Your task to perform on an android device: Go to settings Image 0: 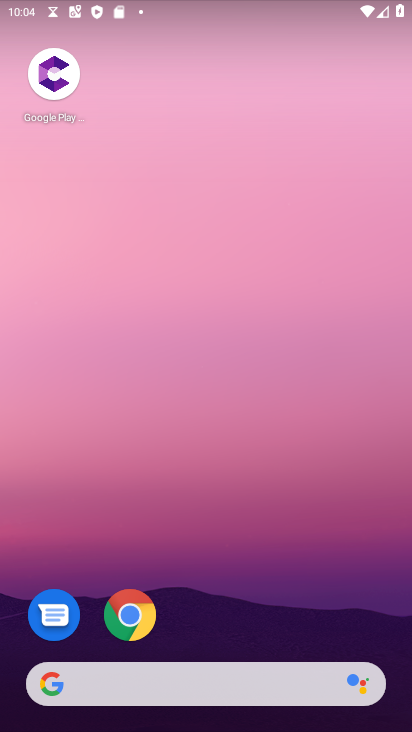
Step 0: drag from (223, 623) to (234, 136)
Your task to perform on an android device: Go to settings Image 1: 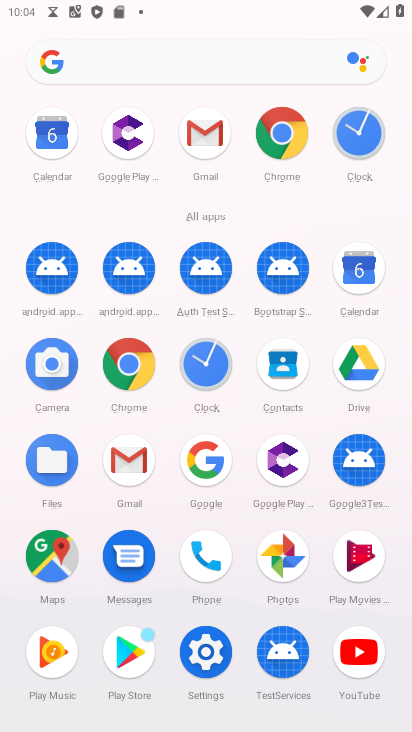
Step 1: click (207, 641)
Your task to perform on an android device: Go to settings Image 2: 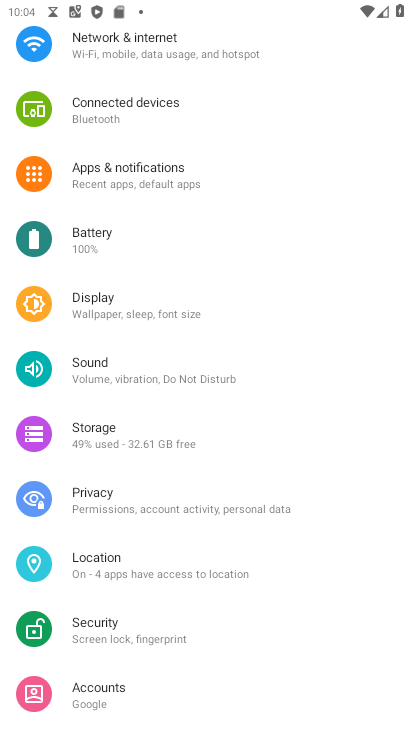
Step 2: task complete